Your task to perform on an android device: Check the news Image 0: 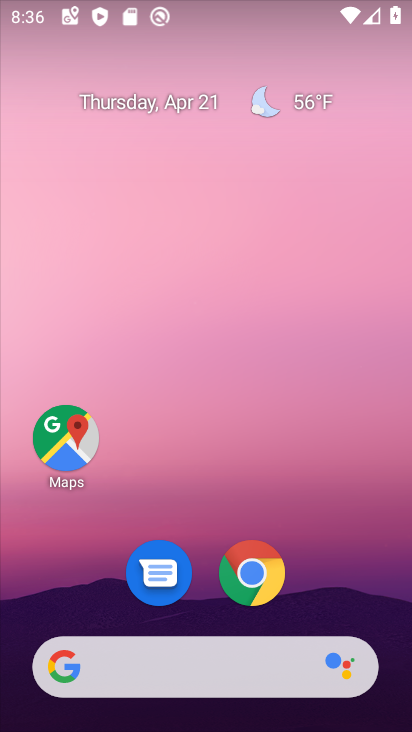
Step 0: drag from (12, 225) to (411, 231)
Your task to perform on an android device: Check the news Image 1: 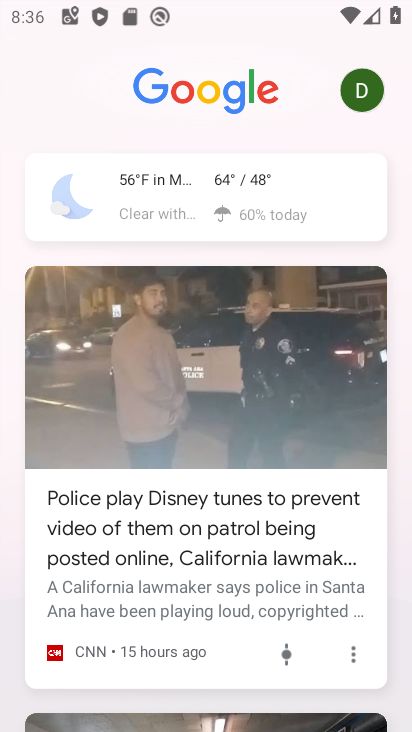
Step 1: task complete